Your task to perform on an android device: Open settings Image 0: 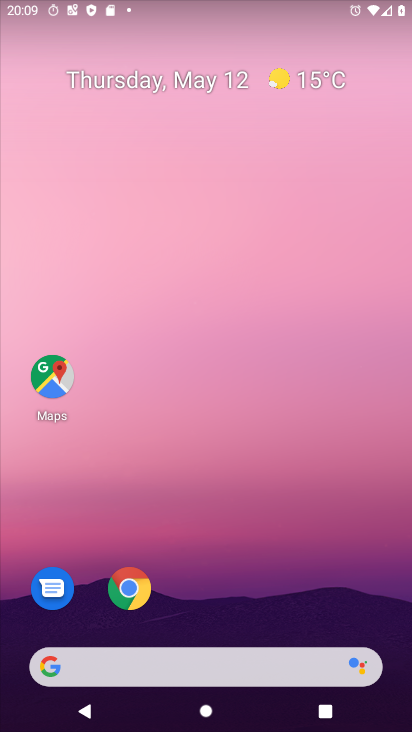
Step 0: drag from (214, 621) to (304, 292)
Your task to perform on an android device: Open settings Image 1: 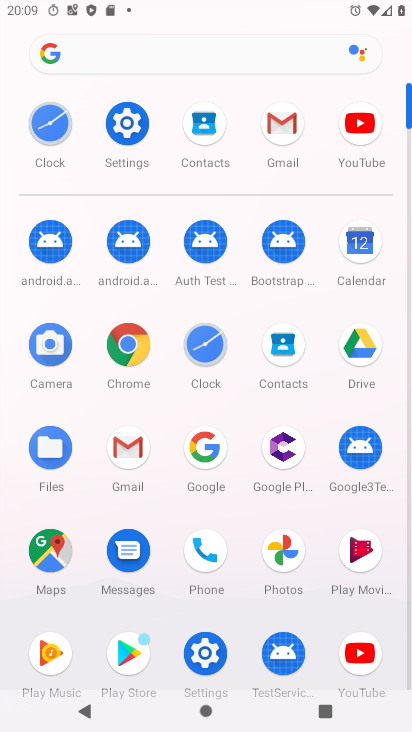
Step 1: click (208, 653)
Your task to perform on an android device: Open settings Image 2: 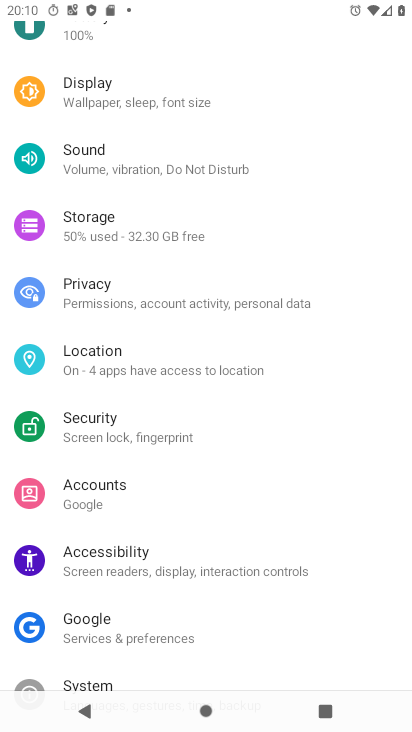
Step 2: task complete